Your task to perform on an android device: Search for Mexican restaurants on Maps Image 0: 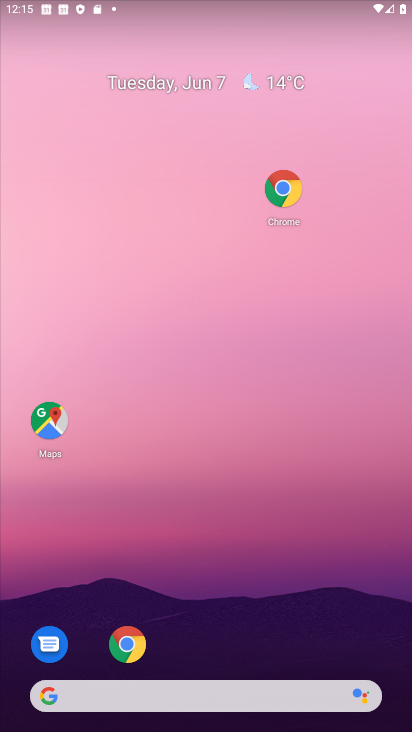
Step 0: click (49, 424)
Your task to perform on an android device: Search for Mexican restaurants on Maps Image 1: 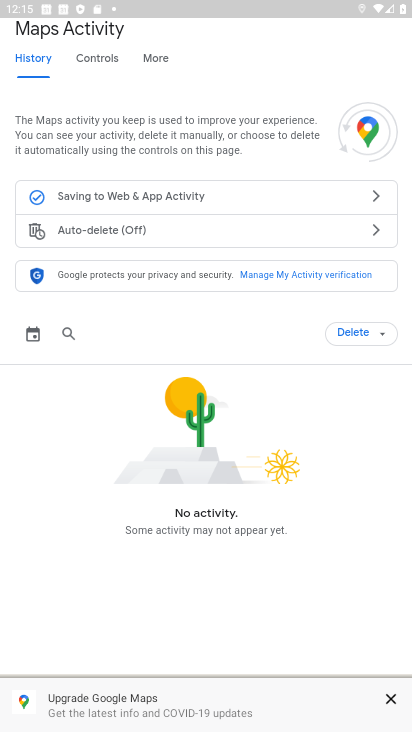
Step 1: click (389, 690)
Your task to perform on an android device: Search for Mexican restaurants on Maps Image 2: 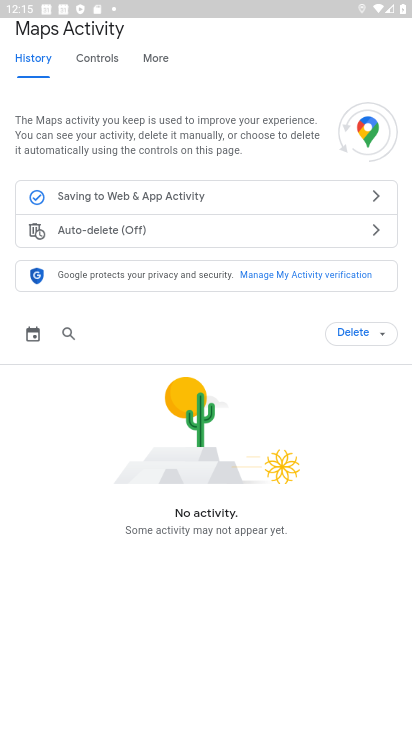
Step 2: press back button
Your task to perform on an android device: Search for Mexican restaurants on Maps Image 3: 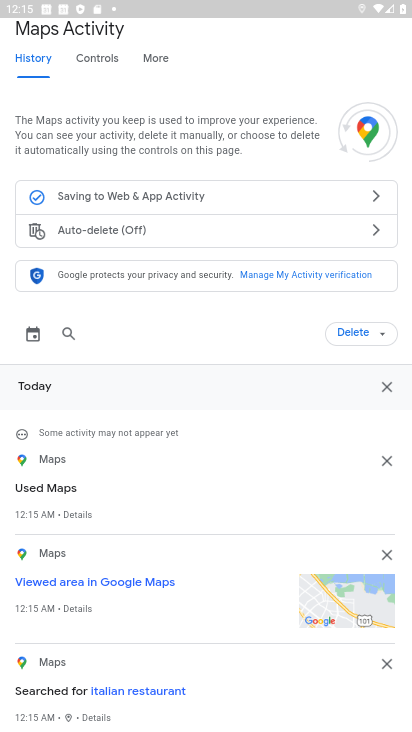
Step 3: press back button
Your task to perform on an android device: Search for Mexican restaurants on Maps Image 4: 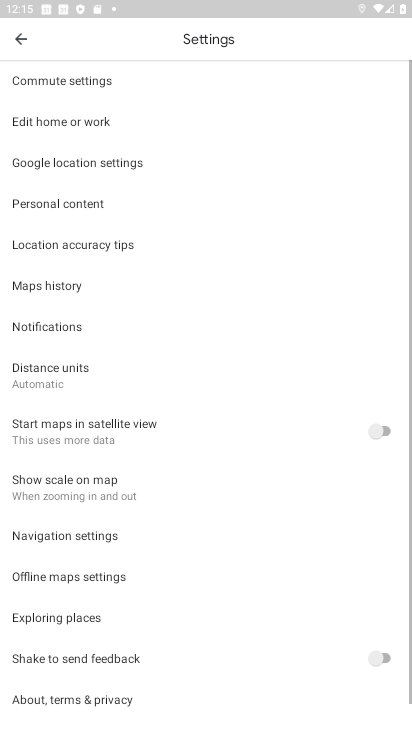
Step 4: press back button
Your task to perform on an android device: Search for Mexican restaurants on Maps Image 5: 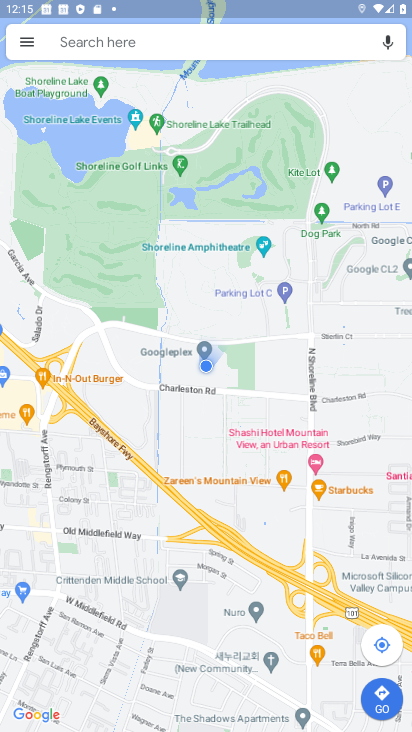
Step 5: click (226, 38)
Your task to perform on an android device: Search for Mexican restaurants on Maps Image 6: 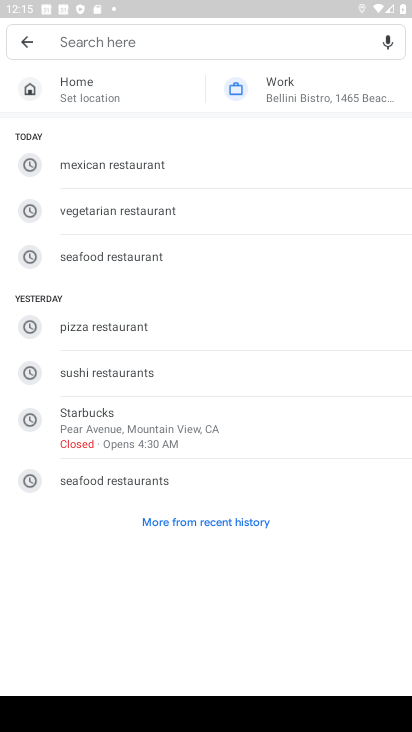
Step 6: type "Mexican restaurants"
Your task to perform on an android device: Search for Mexican restaurants on Maps Image 7: 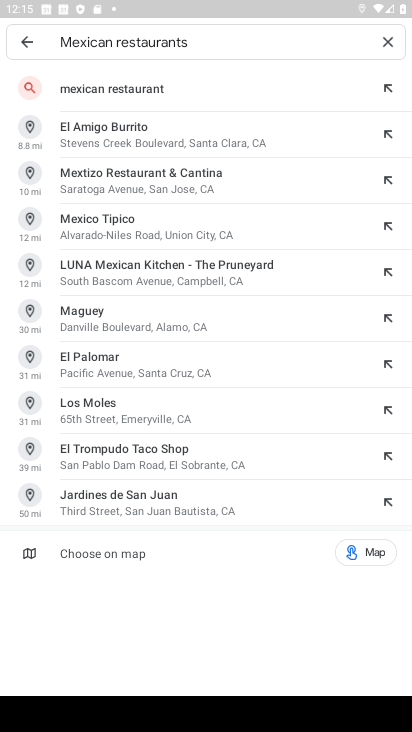
Step 7: click (286, 88)
Your task to perform on an android device: Search for Mexican restaurants on Maps Image 8: 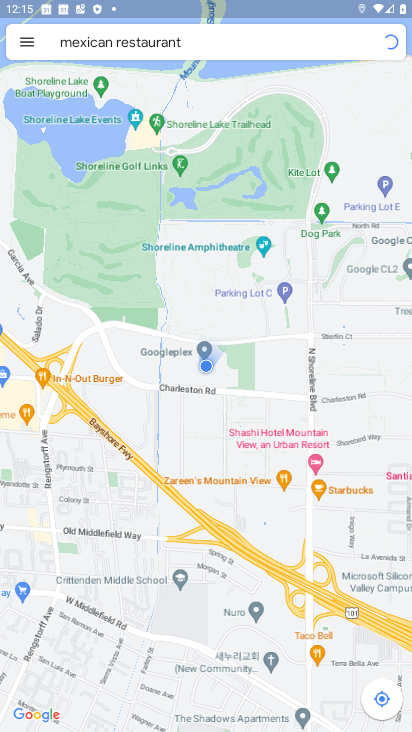
Step 8: click (261, 37)
Your task to perform on an android device: Search for Mexican restaurants on Maps Image 9: 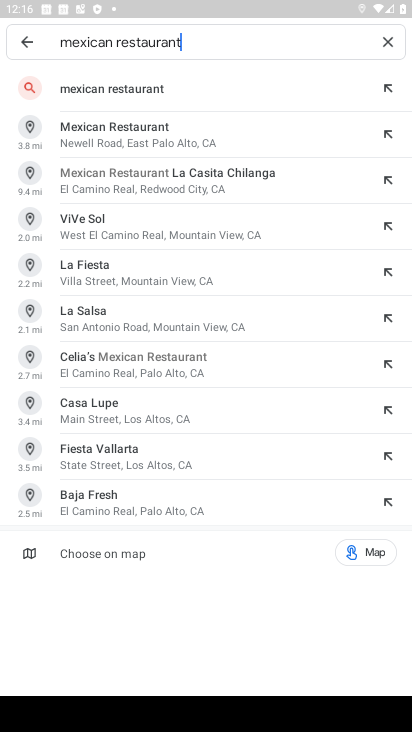
Step 9: type "s"
Your task to perform on an android device: Search for Mexican restaurants on Maps Image 10: 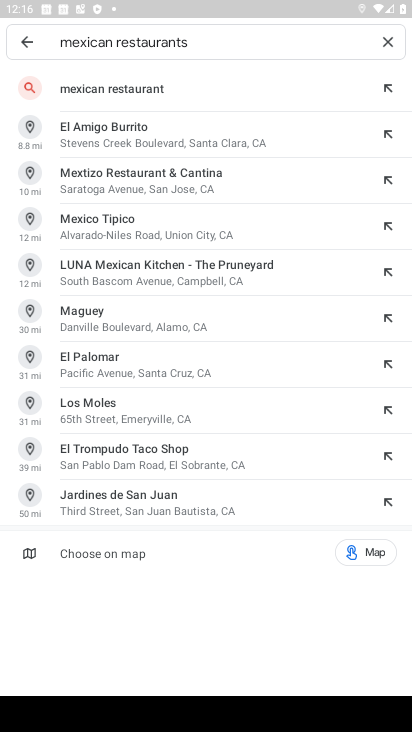
Step 10: press enter
Your task to perform on an android device: Search for Mexican restaurants on Maps Image 11: 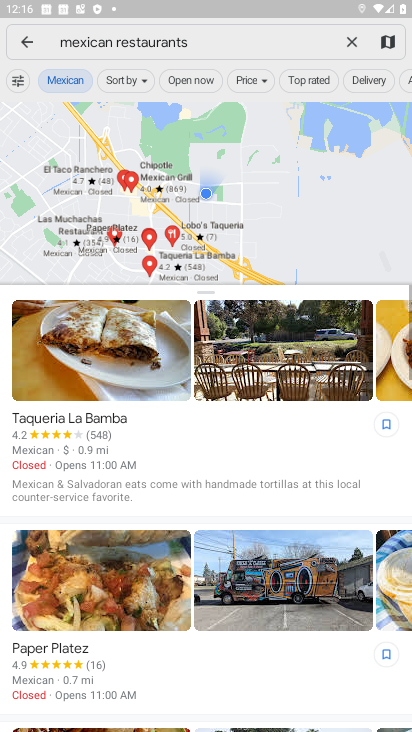
Step 11: task complete